Your task to perform on an android device: View the shopping cart on newegg. Add corsair k70 to the cart on newegg, then select checkout. Image 0: 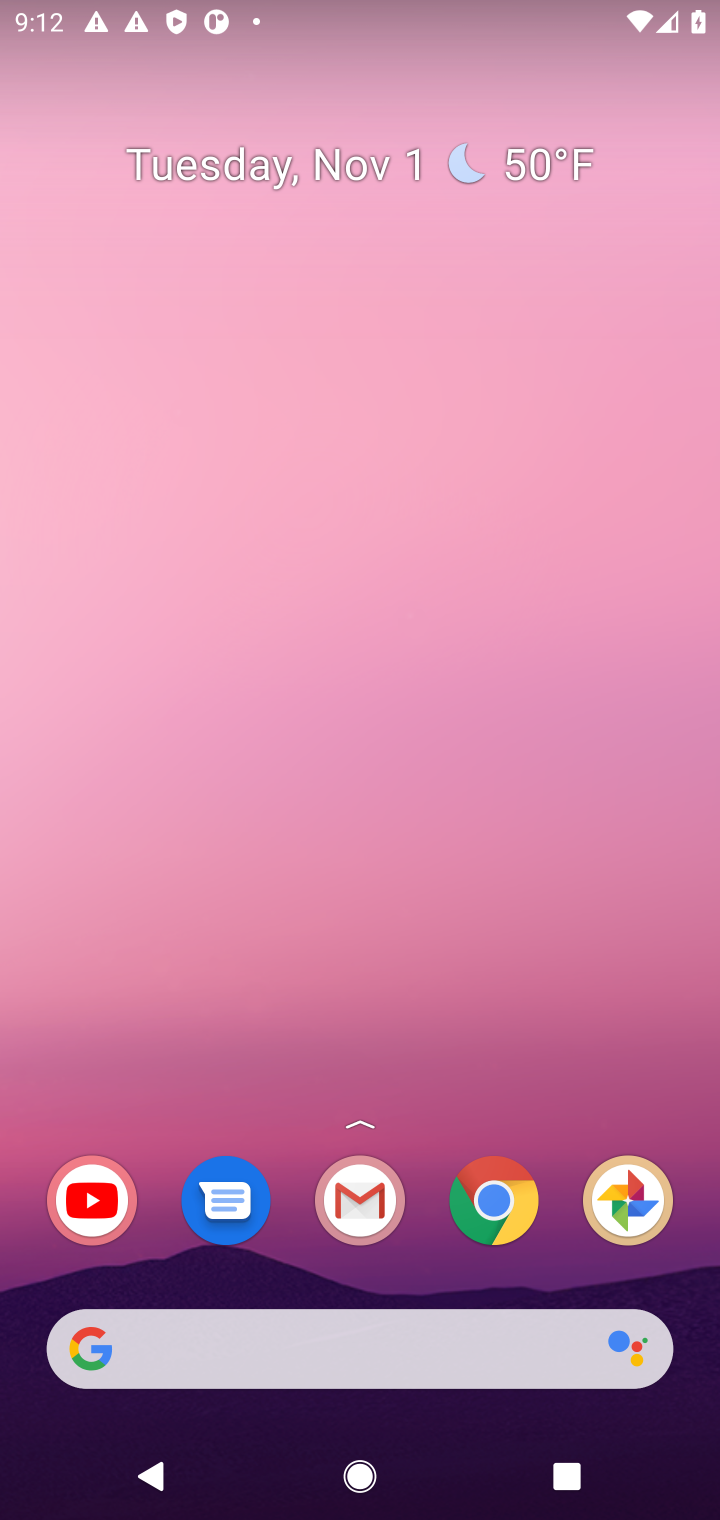
Step 0: click (439, 1334)
Your task to perform on an android device: View the shopping cart on newegg. Add corsair k70 to the cart on newegg, then select checkout. Image 1: 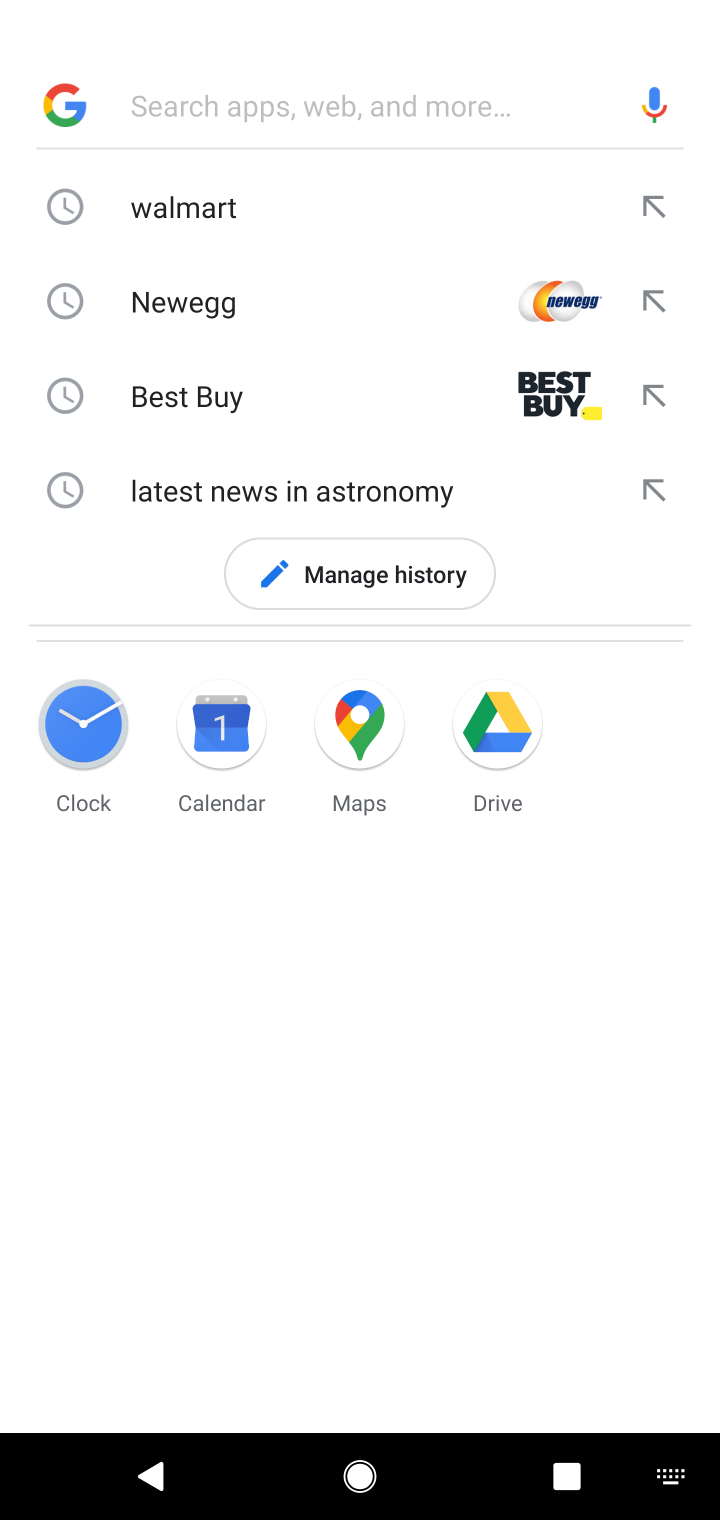
Step 1: type "newegg"
Your task to perform on an android device: View the shopping cart on newegg. Add corsair k70 to the cart on newegg, then select checkout. Image 2: 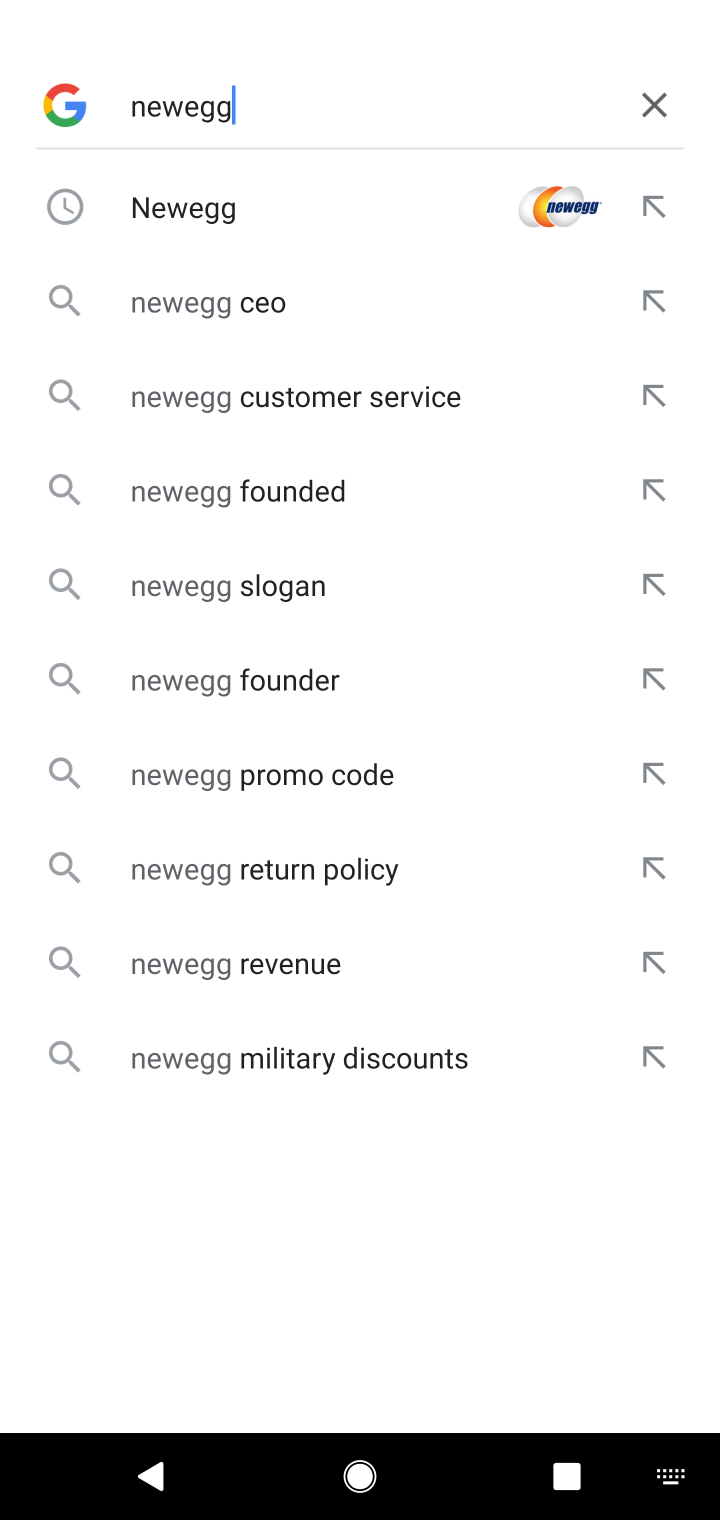
Step 2: click (257, 224)
Your task to perform on an android device: View the shopping cart on newegg. Add corsair k70 to the cart on newegg, then select checkout. Image 3: 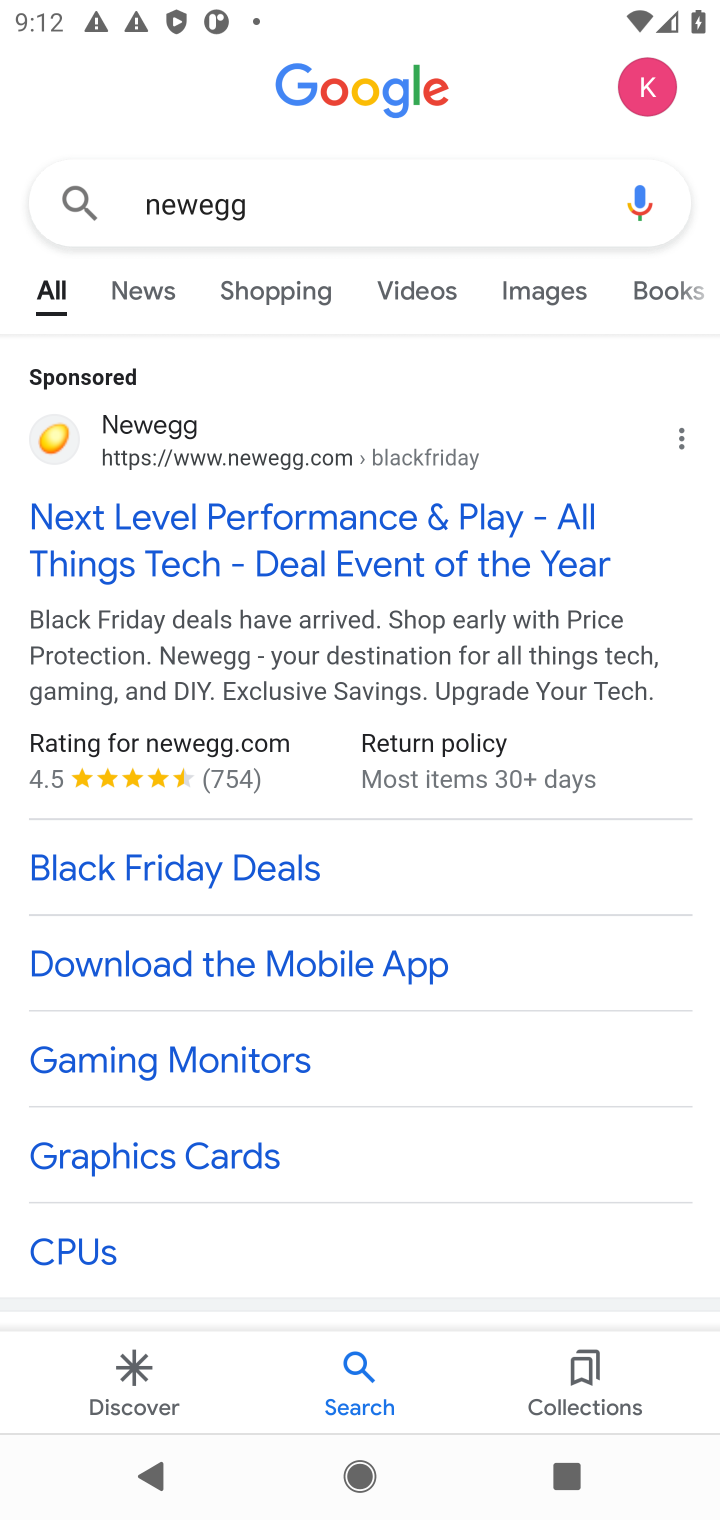
Step 3: click (163, 519)
Your task to perform on an android device: View the shopping cart on newegg. Add corsair k70 to the cart on newegg, then select checkout. Image 4: 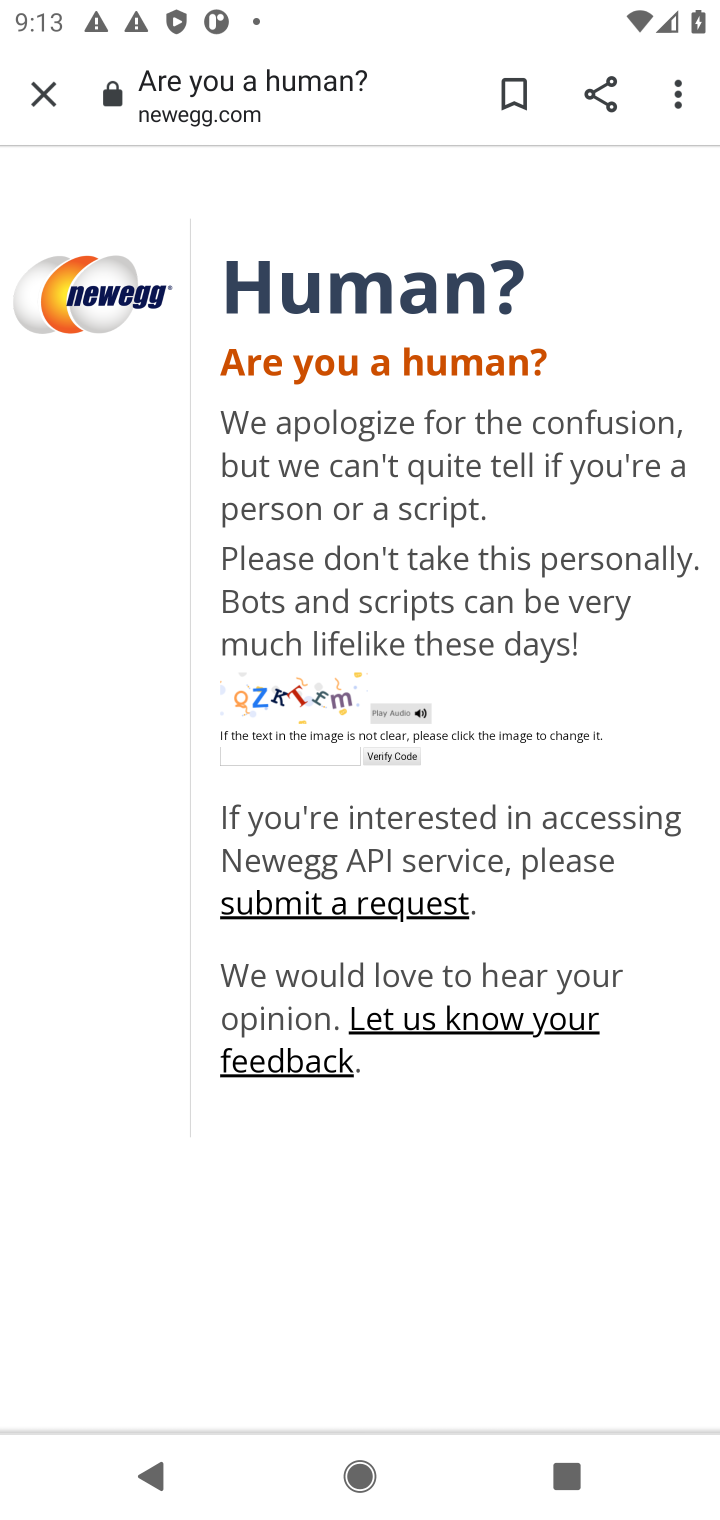
Step 4: task complete